Your task to perform on an android device: turn off smart reply in the gmail app Image 0: 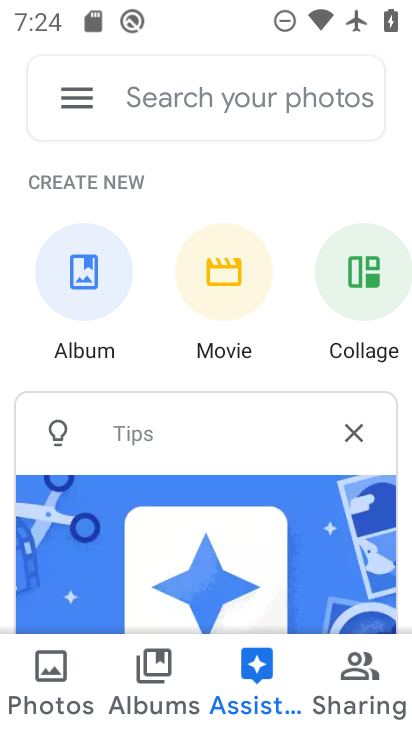
Step 0: press home button
Your task to perform on an android device: turn off smart reply in the gmail app Image 1: 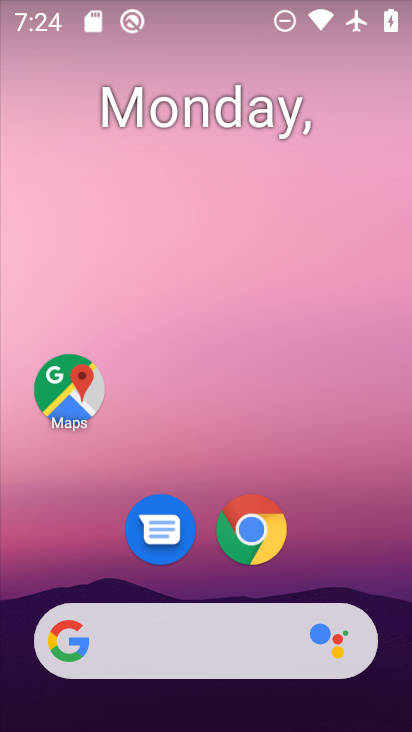
Step 1: drag from (252, 449) to (152, 64)
Your task to perform on an android device: turn off smart reply in the gmail app Image 2: 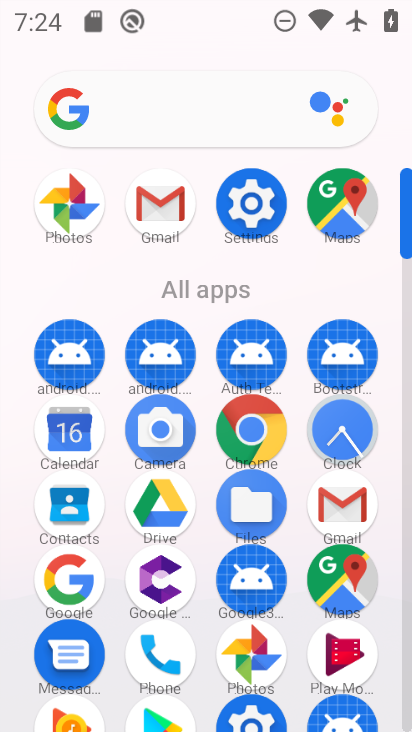
Step 2: click (144, 206)
Your task to perform on an android device: turn off smart reply in the gmail app Image 3: 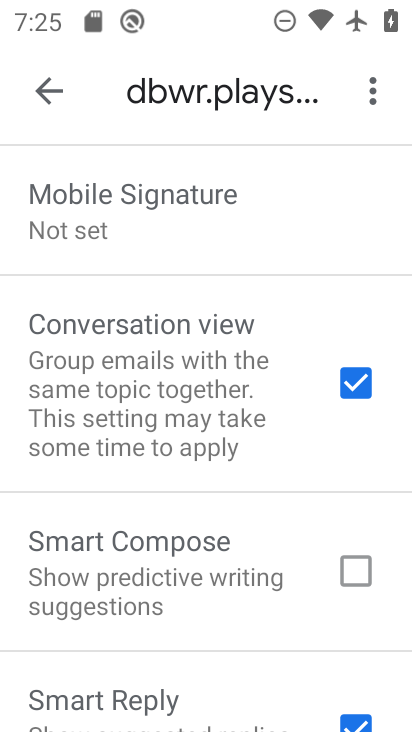
Step 3: drag from (198, 502) to (109, 248)
Your task to perform on an android device: turn off smart reply in the gmail app Image 4: 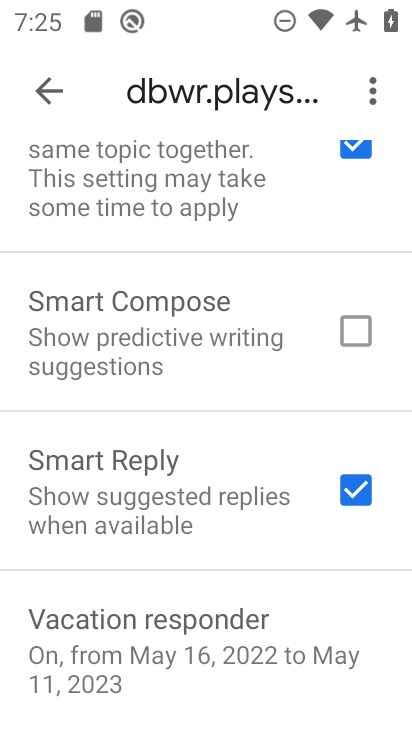
Step 4: click (360, 485)
Your task to perform on an android device: turn off smart reply in the gmail app Image 5: 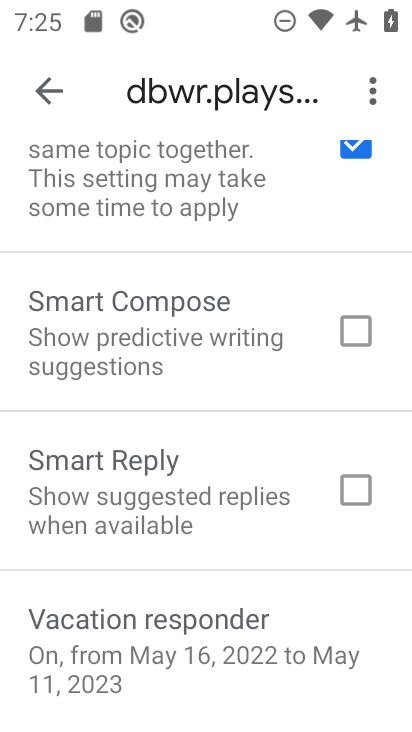
Step 5: task complete